Your task to perform on an android device: Clear the cart on target.com. Image 0: 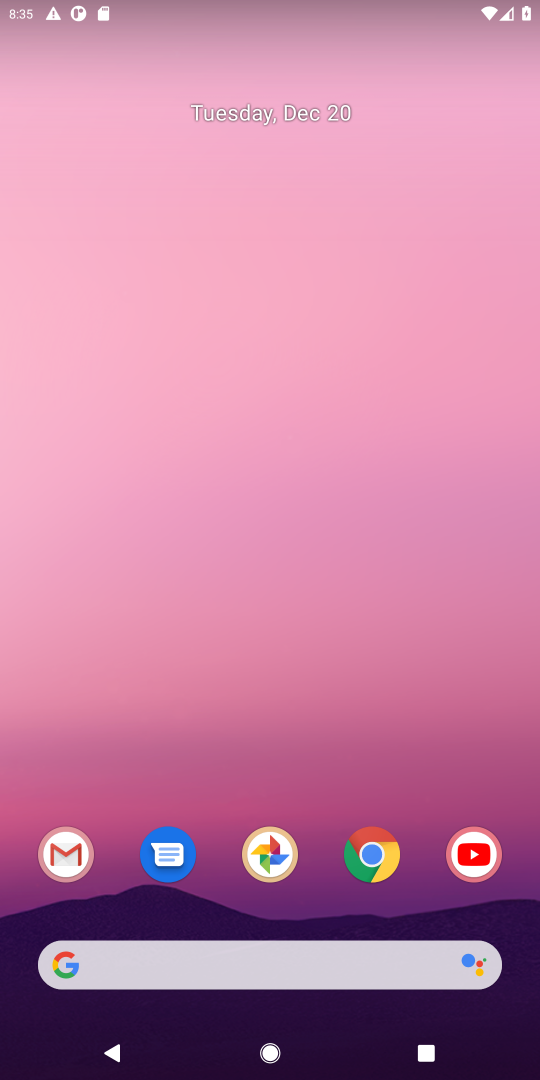
Step 0: click (377, 856)
Your task to perform on an android device: Clear the cart on target.com. Image 1: 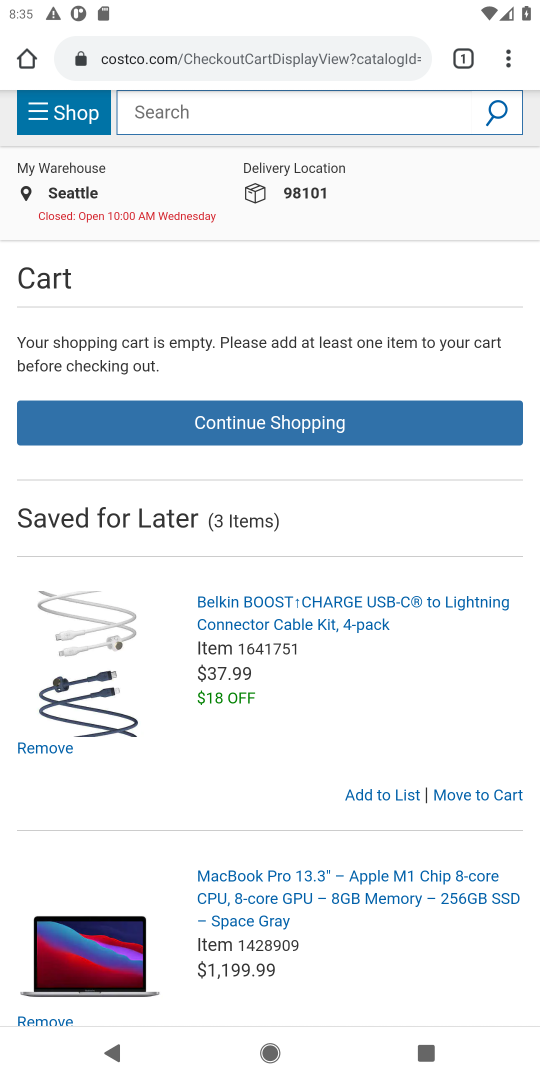
Step 1: click (201, 57)
Your task to perform on an android device: Clear the cart on target.com. Image 2: 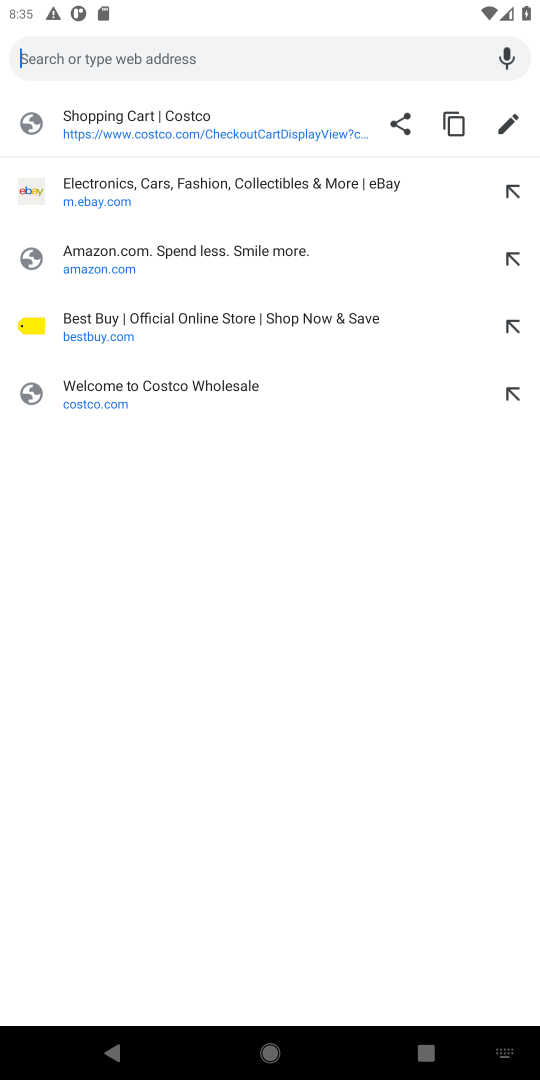
Step 2: type "target.com"
Your task to perform on an android device: Clear the cart on target.com. Image 3: 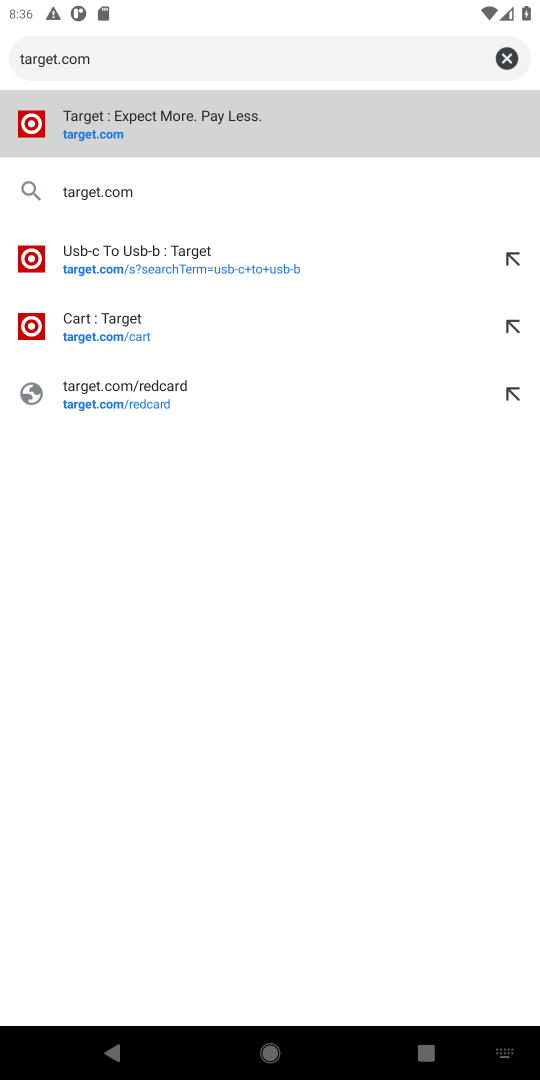
Step 3: click (101, 136)
Your task to perform on an android device: Clear the cart on target.com. Image 4: 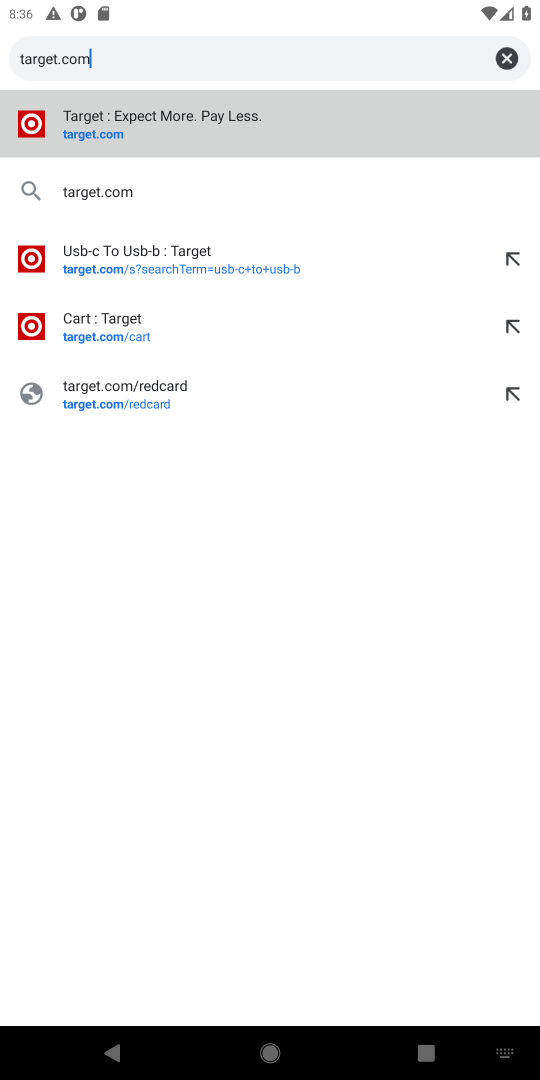
Step 4: click (101, 136)
Your task to perform on an android device: Clear the cart on target.com. Image 5: 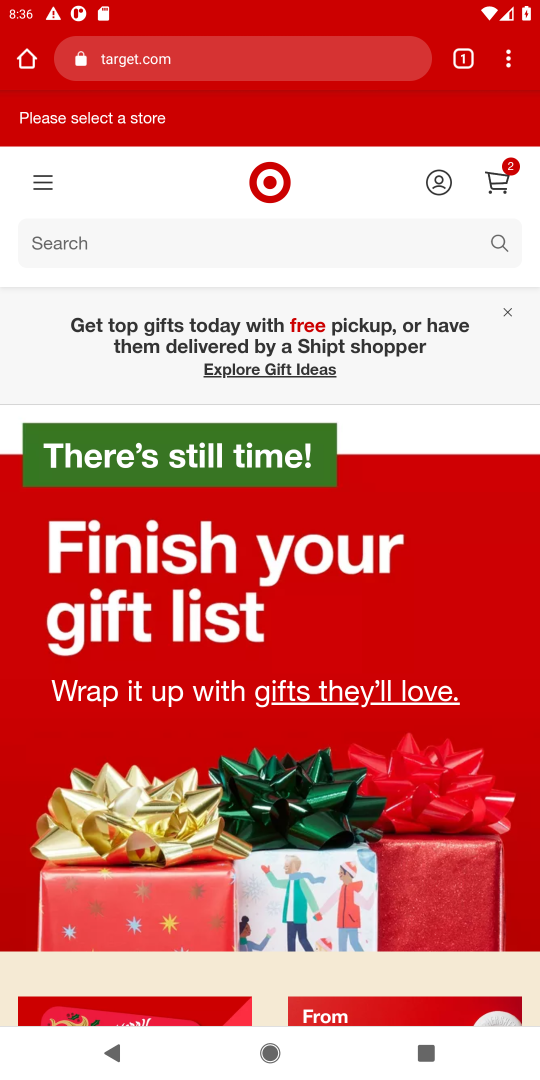
Step 5: click (497, 178)
Your task to perform on an android device: Clear the cart on target.com. Image 6: 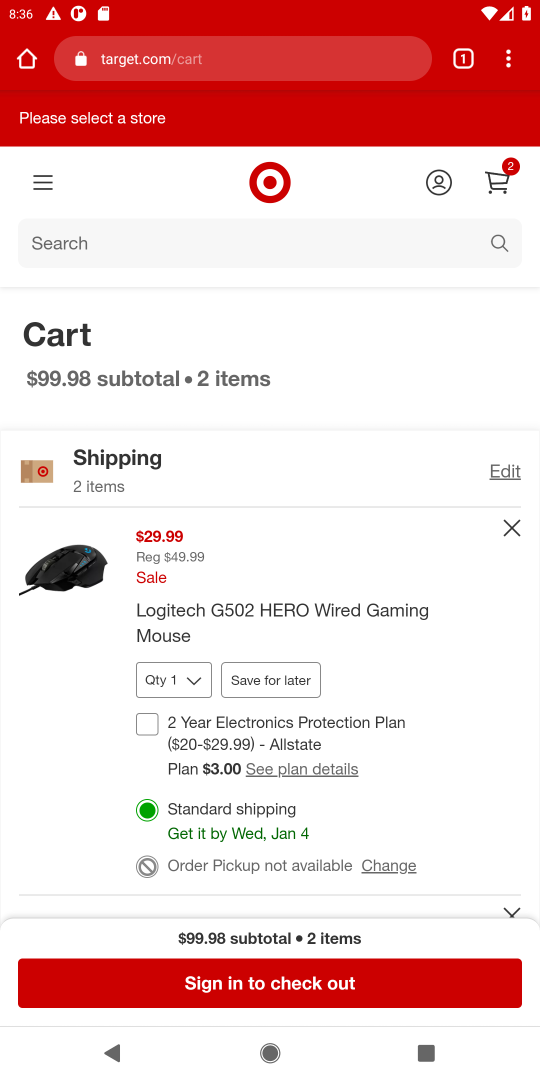
Step 6: click (509, 528)
Your task to perform on an android device: Clear the cart on target.com. Image 7: 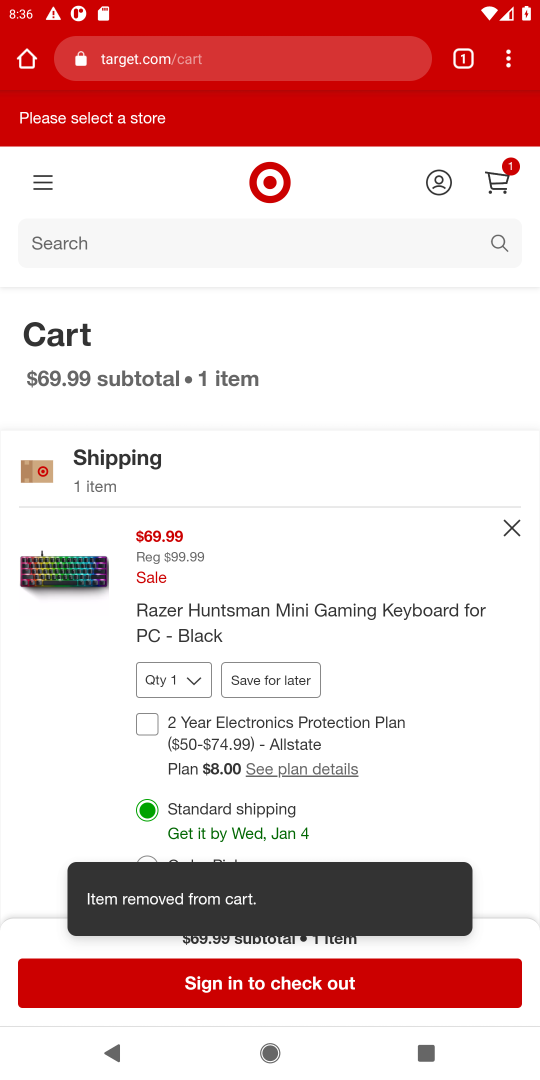
Step 7: click (509, 528)
Your task to perform on an android device: Clear the cart on target.com. Image 8: 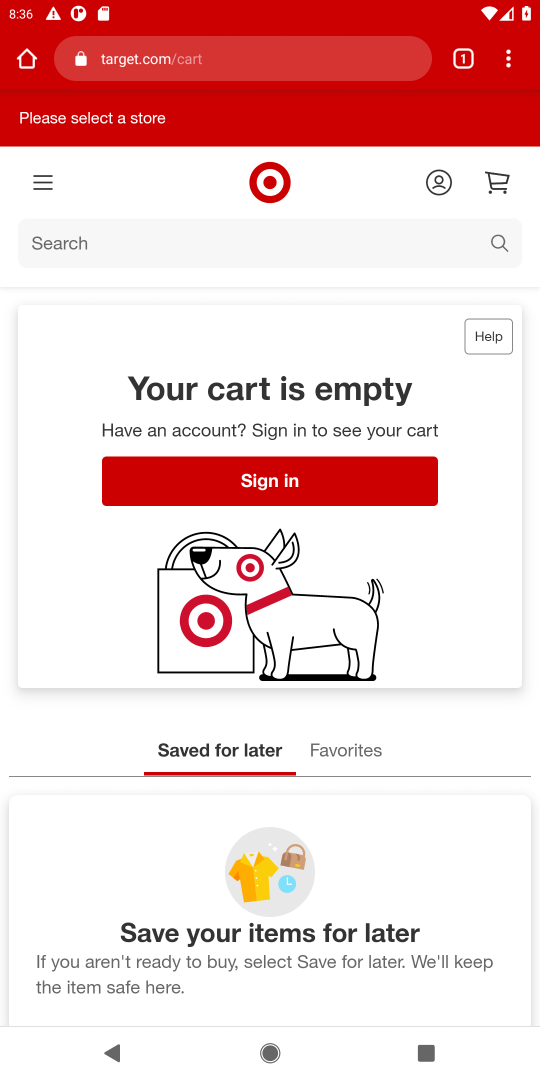
Step 8: task complete